Your task to perform on an android device: Show me productivity apps on the Play Store Image 0: 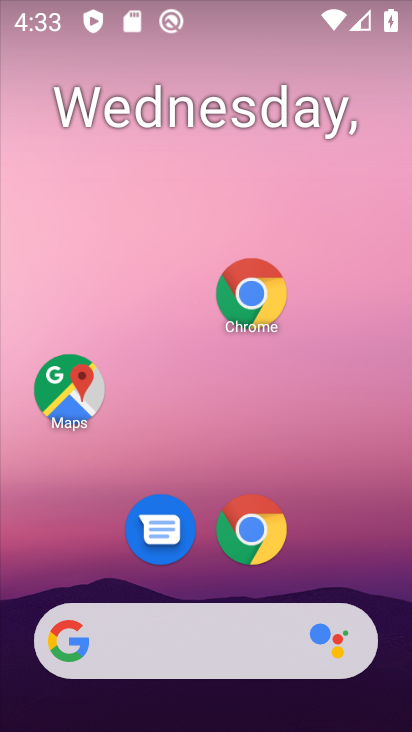
Step 0: drag from (301, 518) to (324, 162)
Your task to perform on an android device: Show me productivity apps on the Play Store Image 1: 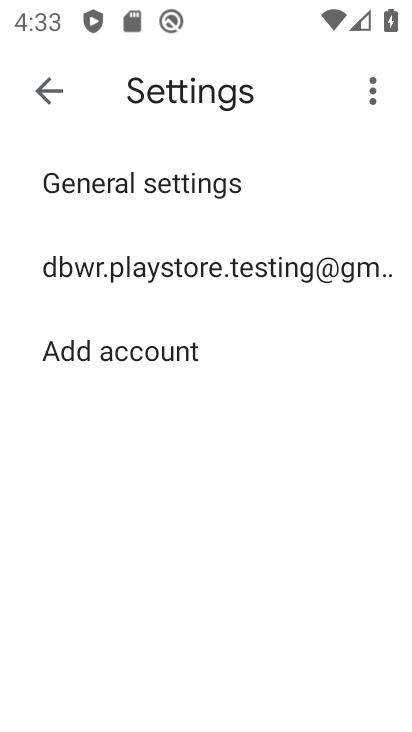
Step 1: press home button
Your task to perform on an android device: Show me productivity apps on the Play Store Image 2: 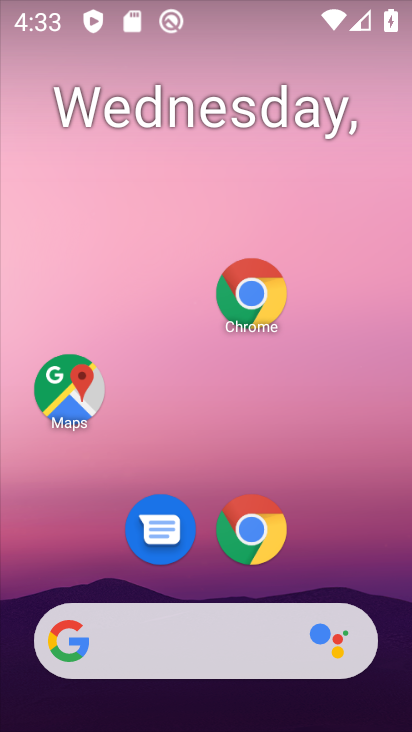
Step 2: drag from (331, 533) to (336, 103)
Your task to perform on an android device: Show me productivity apps on the Play Store Image 3: 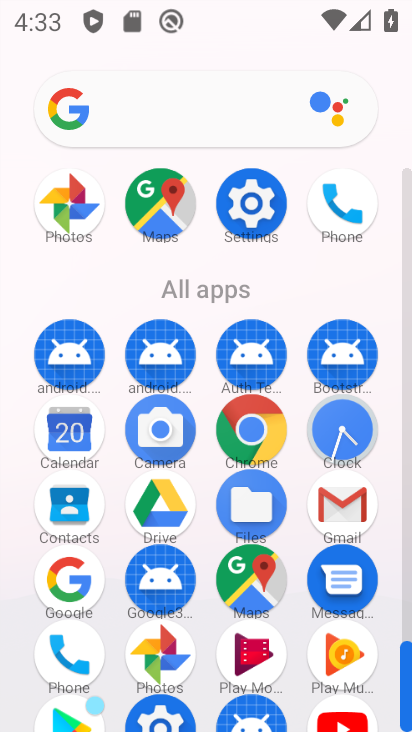
Step 3: drag from (297, 635) to (312, 244)
Your task to perform on an android device: Show me productivity apps on the Play Store Image 4: 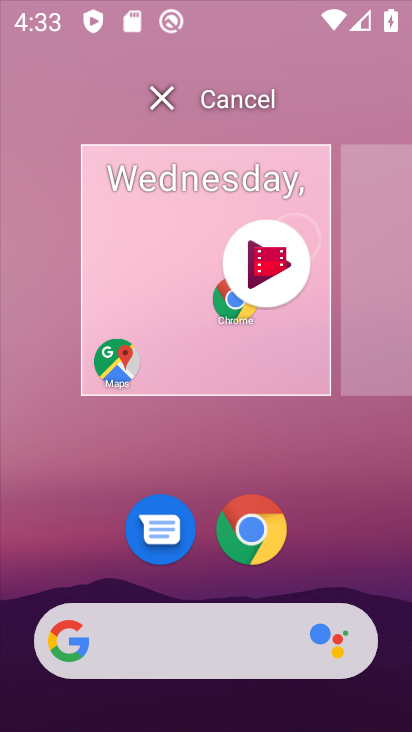
Step 4: drag from (311, 452) to (329, 137)
Your task to perform on an android device: Show me productivity apps on the Play Store Image 5: 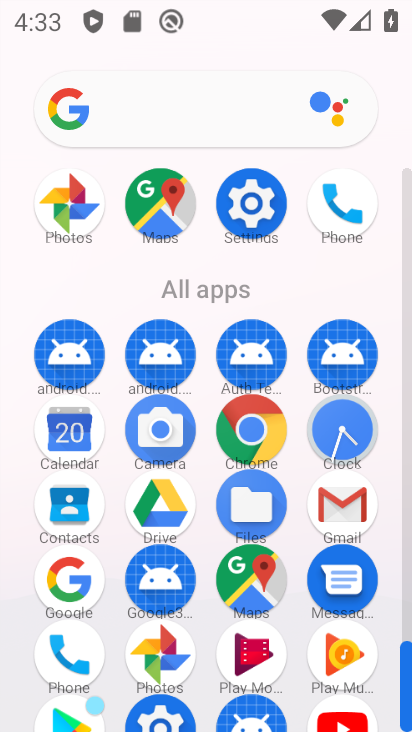
Step 5: drag from (299, 613) to (306, 103)
Your task to perform on an android device: Show me productivity apps on the Play Store Image 6: 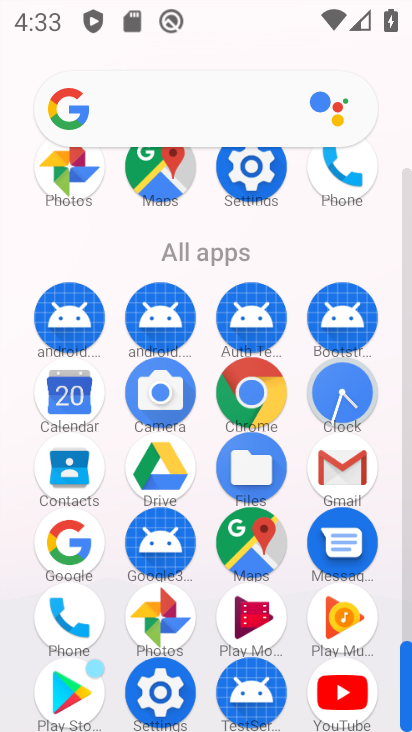
Step 6: click (67, 680)
Your task to perform on an android device: Show me productivity apps on the Play Store Image 7: 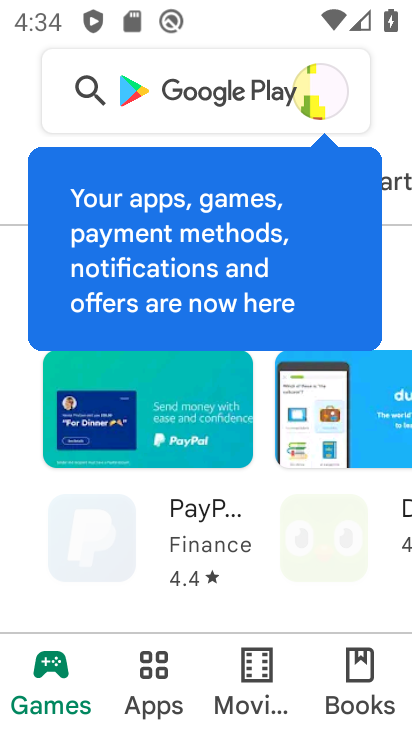
Step 7: click (137, 690)
Your task to perform on an android device: Show me productivity apps on the Play Store Image 8: 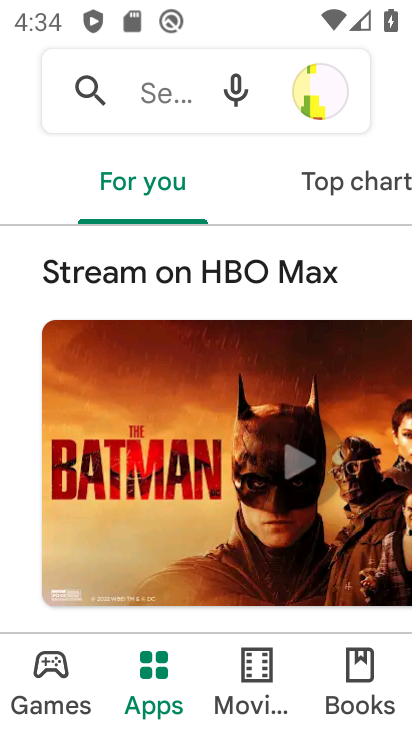
Step 8: drag from (341, 188) to (83, 205)
Your task to perform on an android device: Show me productivity apps on the Play Store Image 9: 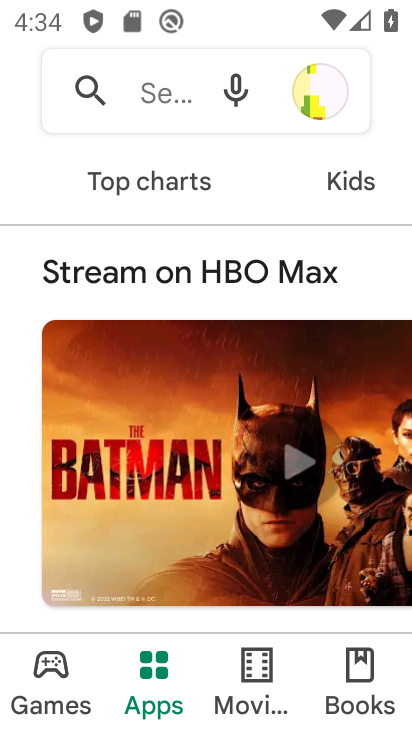
Step 9: drag from (362, 196) to (127, 223)
Your task to perform on an android device: Show me productivity apps on the Play Store Image 10: 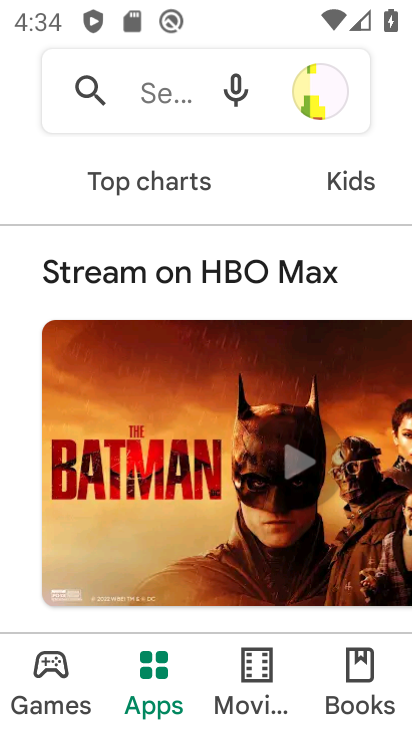
Step 10: drag from (325, 172) to (127, 188)
Your task to perform on an android device: Show me productivity apps on the Play Store Image 11: 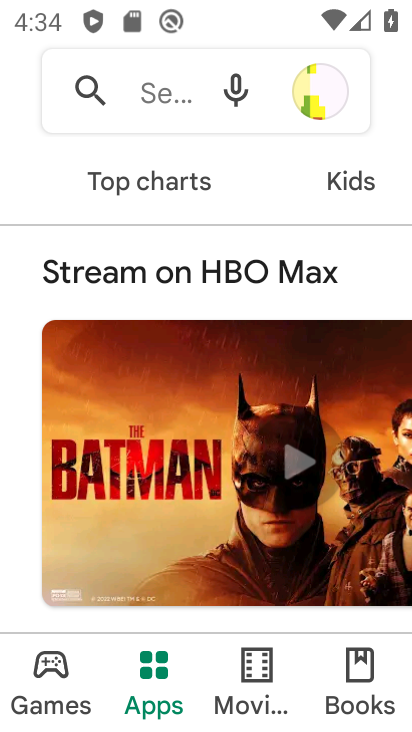
Step 11: drag from (267, 183) to (103, 183)
Your task to perform on an android device: Show me productivity apps on the Play Store Image 12: 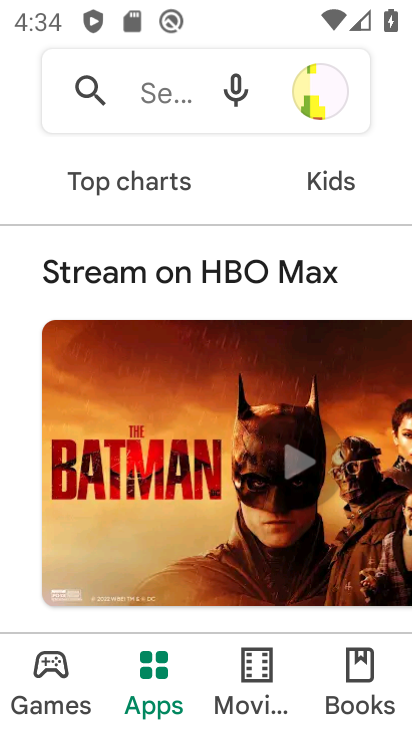
Step 12: drag from (351, 192) to (109, 192)
Your task to perform on an android device: Show me productivity apps on the Play Store Image 13: 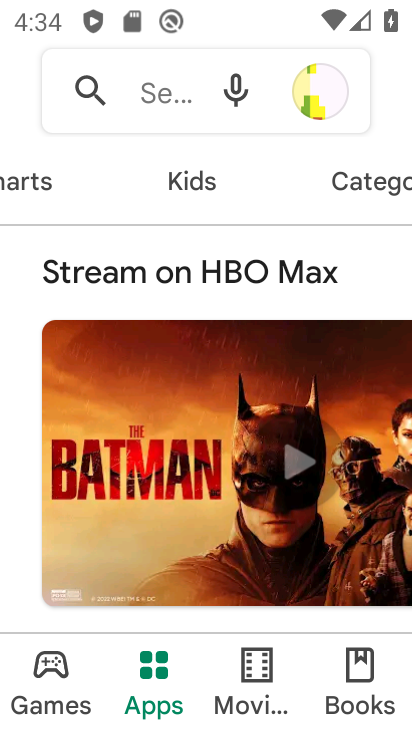
Step 13: drag from (376, 189) to (188, 189)
Your task to perform on an android device: Show me productivity apps on the Play Store Image 14: 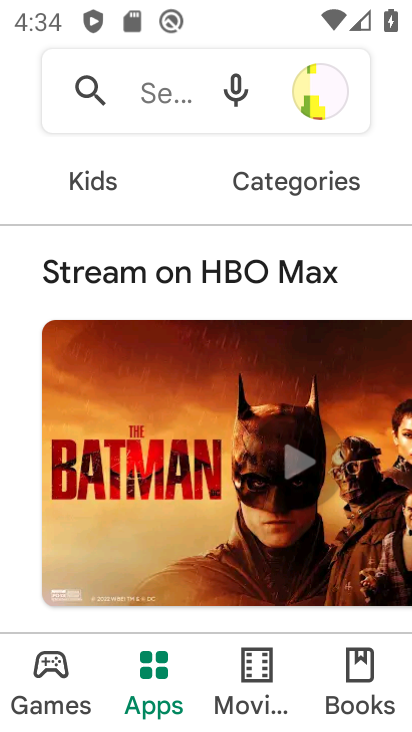
Step 14: click (272, 180)
Your task to perform on an android device: Show me productivity apps on the Play Store Image 15: 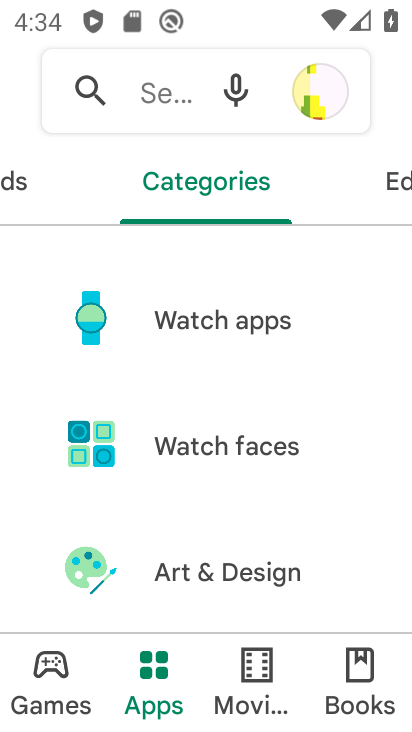
Step 15: drag from (275, 564) to (292, 278)
Your task to perform on an android device: Show me productivity apps on the Play Store Image 16: 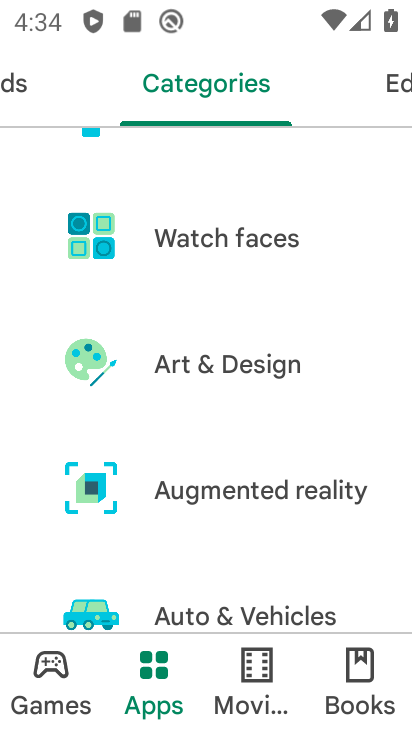
Step 16: drag from (293, 422) to (293, 256)
Your task to perform on an android device: Show me productivity apps on the Play Store Image 17: 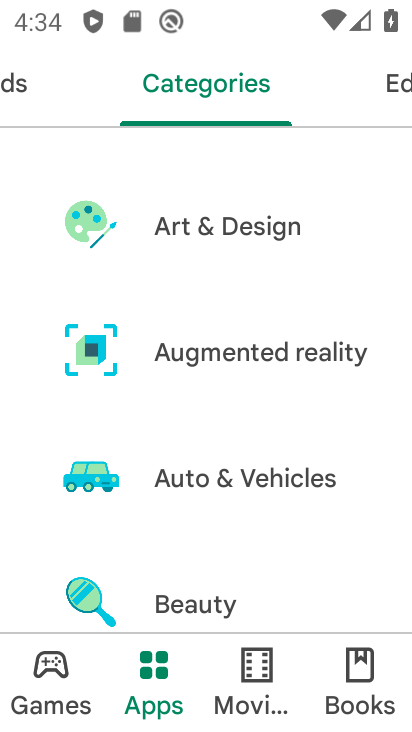
Step 17: drag from (280, 556) to (302, 208)
Your task to perform on an android device: Show me productivity apps on the Play Store Image 18: 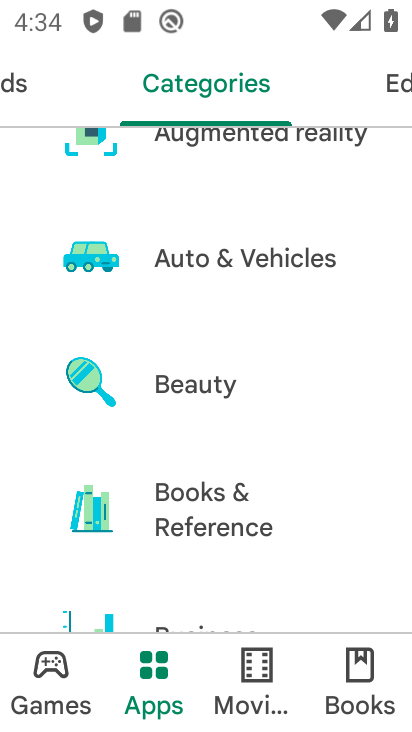
Step 18: drag from (317, 454) to (327, 192)
Your task to perform on an android device: Show me productivity apps on the Play Store Image 19: 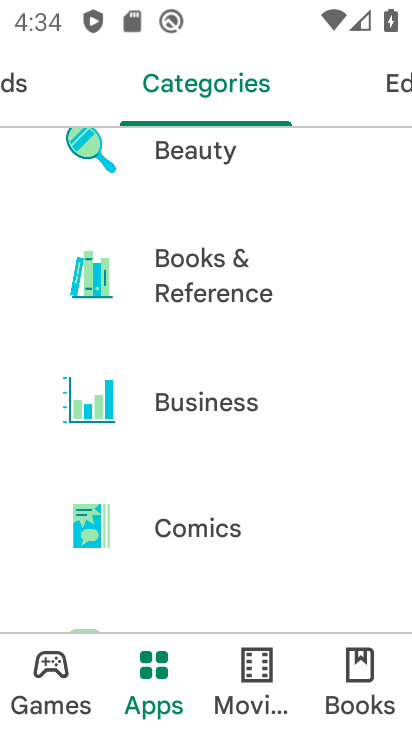
Step 19: drag from (328, 589) to (339, 260)
Your task to perform on an android device: Show me productivity apps on the Play Store Image 20: 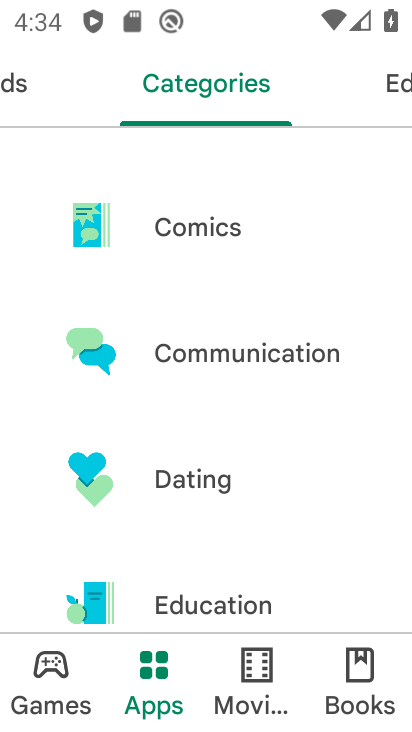
Step 20: drag from (301, 581) to (302, 252)
Your task to perform on an android device: Show me productivity apps on the Play Store Image 21: 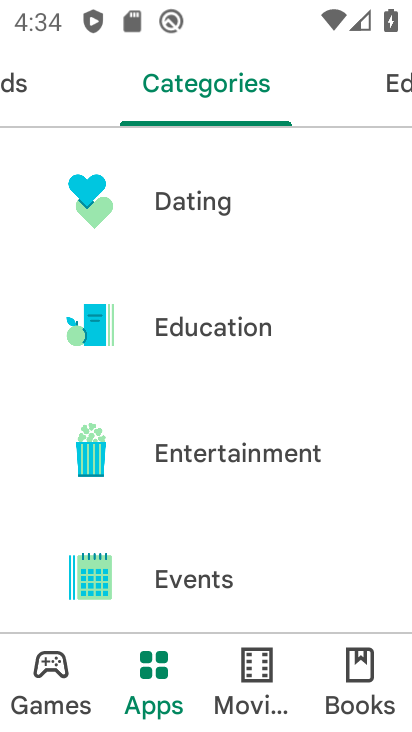
Step 21: drag from (295, 623) to (295, 371)
Your task to perform on an android device: Show me productivity apps on the Play Store Image 22: 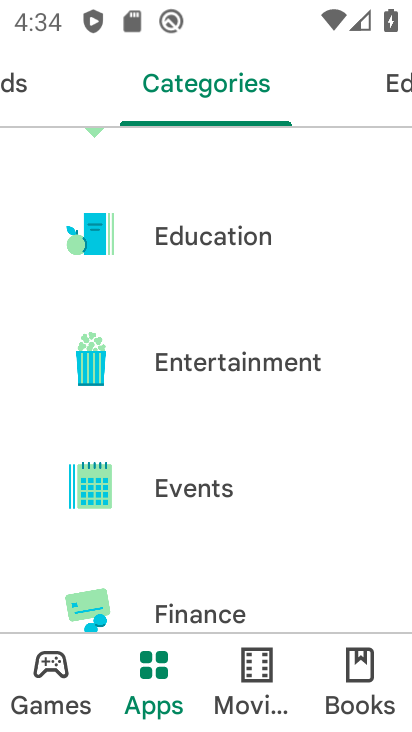
Step 22: drag from (276, 574) to (268, 265)
Your task to perform on an android device: Show me productivity apps on the Play Store Image 23: 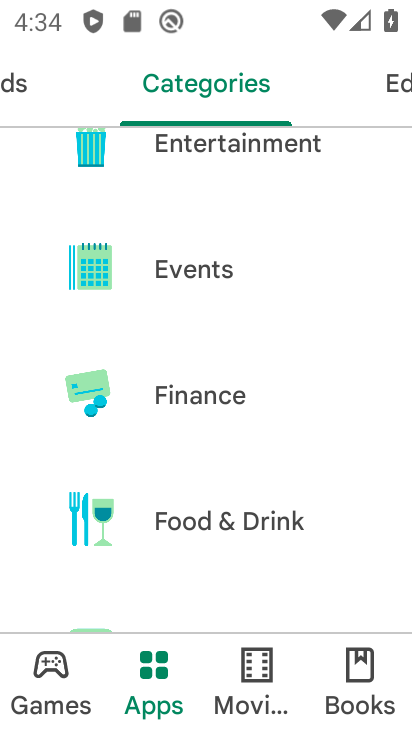
Step 23: drag from (215, 544) to (245, 259)
Your task to perform on an android device: Show me productivity apps on the Play Store Image 24: 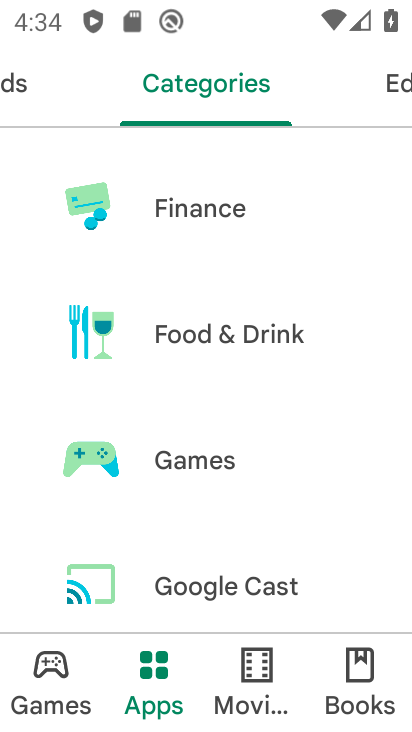
Step 24: drag from (219, 531) to (229, 166)
Your task to perform on an android device: Show me productivity apps on the Play Store Image 25: 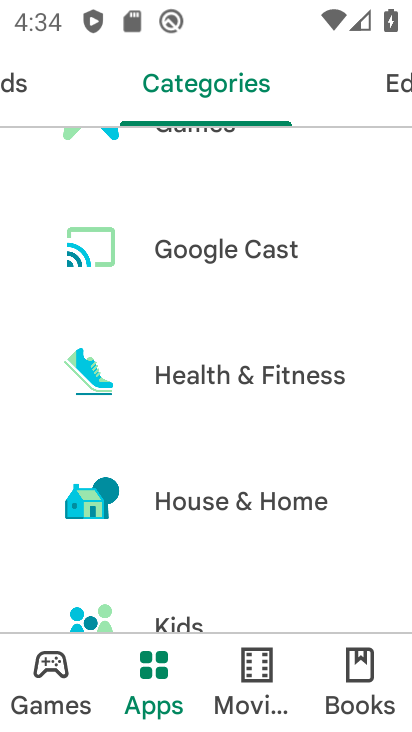
Step 25: drag from (233, 598) to (288, 213)
Your task to perform on an android device: Show me productivity apps on the Play Store Image 26: 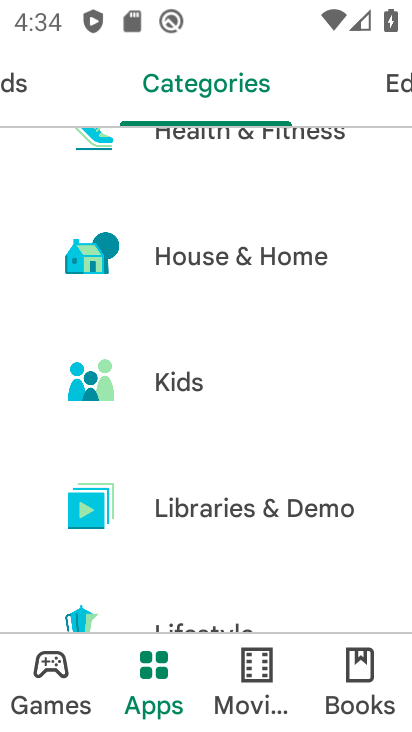
Step 26: drag from (312, 528) to (366, 153)
Your task to perform on an android device: Show me productivity apps on the Play Store Image 27: 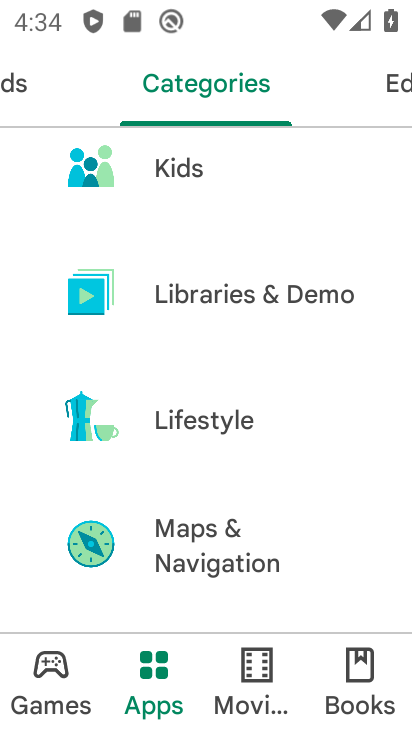
Step 27: drag from (308, 590) to (391, 132)
Your task to perform on an android device: Show me productivity apps on the Play Store Image 28: 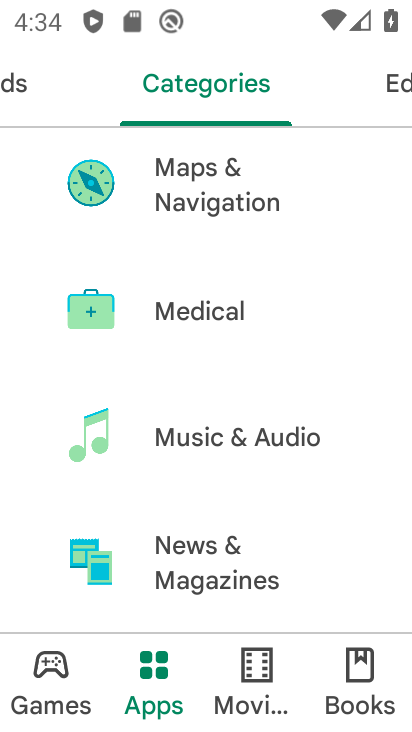
Step 28: drag from (309, 581) to (353, 259)
Your task to perform on an android device: Show me productivity apps on the Play Store Image 29: 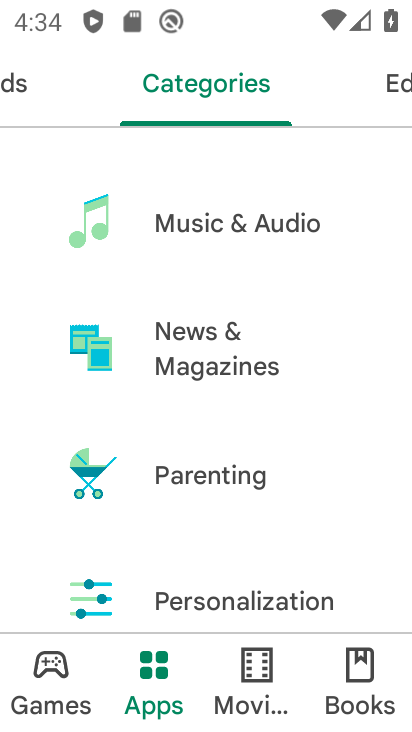
Step 29: drag from (270, 517) to (329, 196)
Your task to perform on an android device: Show me productivity apps on the Play Store Image 30: 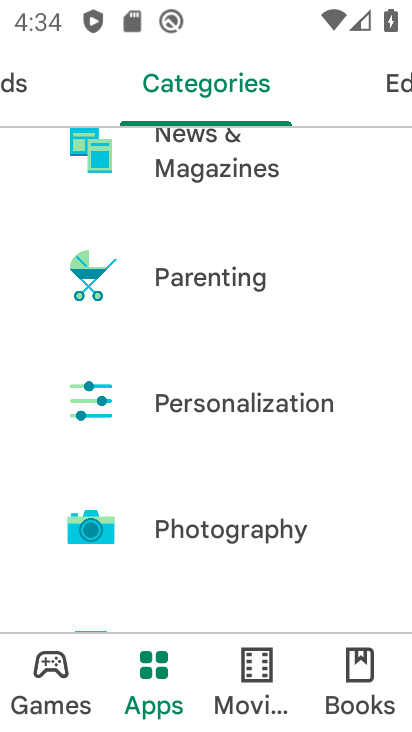
Step 30: drag from (319, 520) to (368, 241)
Your task to perform on an android device: Show me productivity apps on the Play Store Image 31: 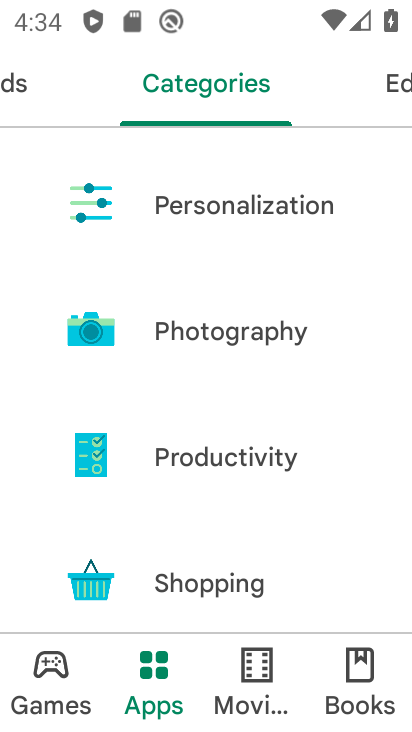
Step 31: click (262, 476)
Your task to perform on an android device: Show me productivity apps on the Play Store Image 32: 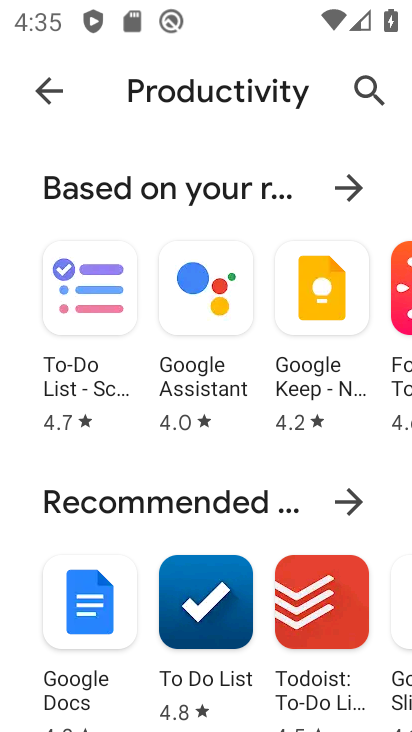
Step 32: task complete